Your task to perform on an android device: What's the weather going to be tomorrow? Image 0: 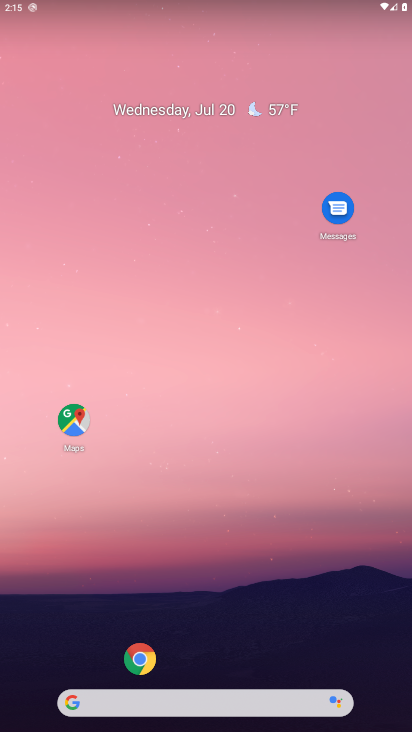
Step 0: click (117, 695)
Your task to perform on an android device: What's the weather going to be tomorrow? Image 1: 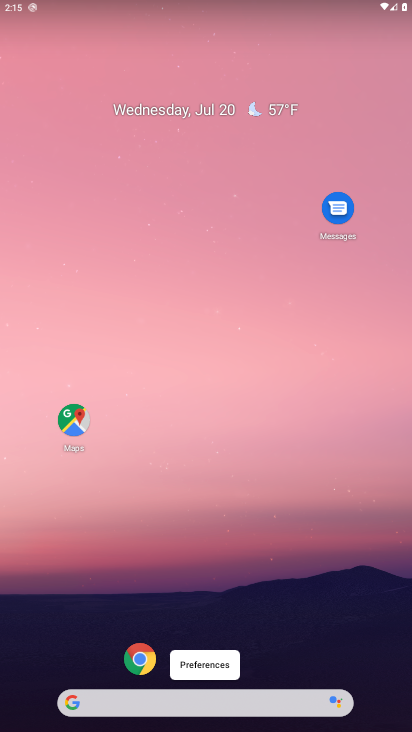
Step 1: click (118, 700)
Your task to perform on an android device: What's the weather going to be tomorrow? Image 2: 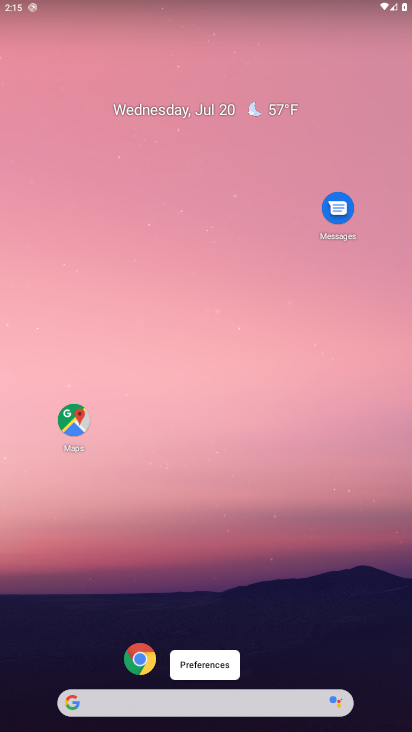
Step 2: click (118, 699)
Your task to perform on an android device: What's the weather going to be tomorrow? Image 3: 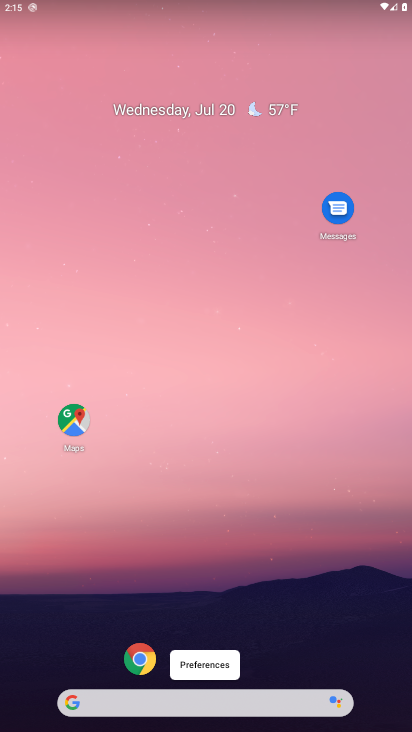
Step 3: click (119, 702)
Your task to perform on an android device: What's the weather going to be tomorrow? Image 4: 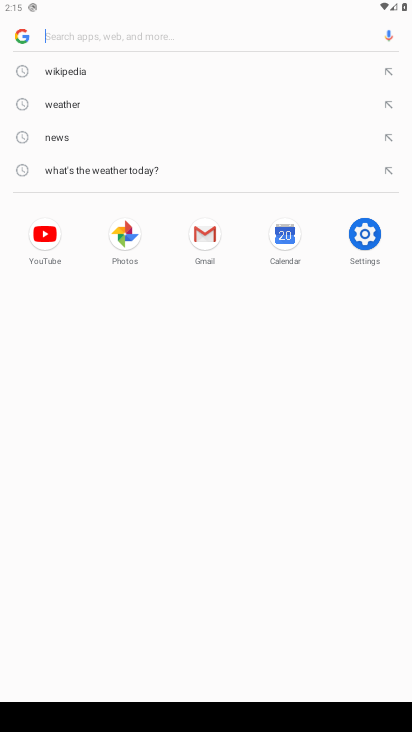
Step 4: type "What's the weather going to be tomorrow?"
Your task to perform on an android device: What's the weather going to be tomorrow? Image 5: 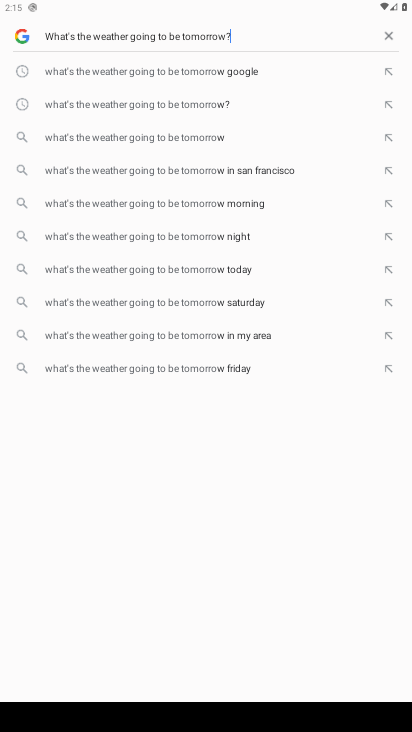
Step 5: type ""
Your task to perform on an android device: What's the weather going to be tomorrow? Image 6: 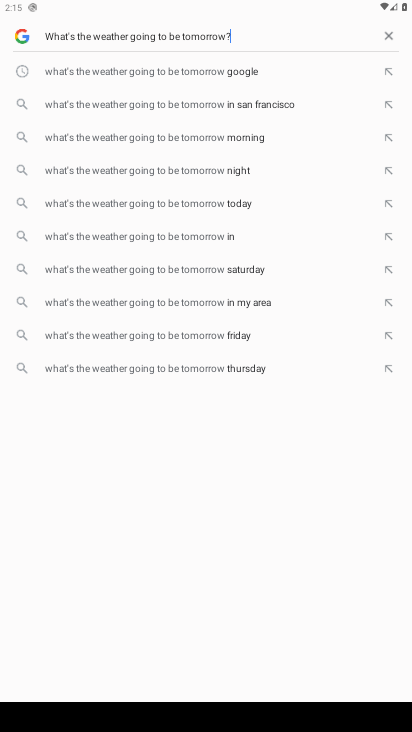
Step 6: type ""
Your task to perform on an android device: What's the weather going to be tomorrow? Image 7: 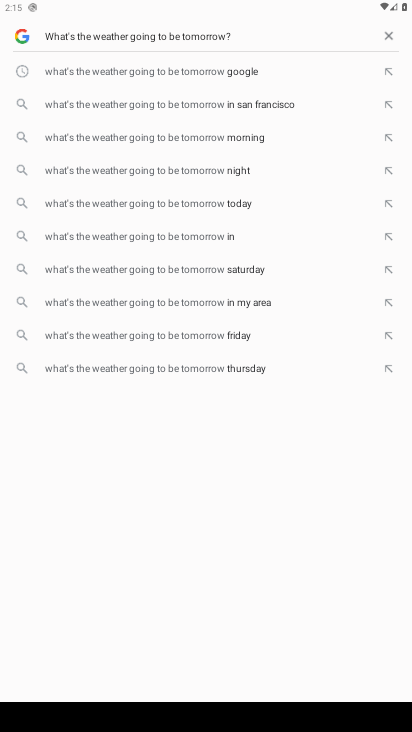
Step 7: type ""
Your task to perform on an android device: What's the weather going to be tomorrow? Image 8: 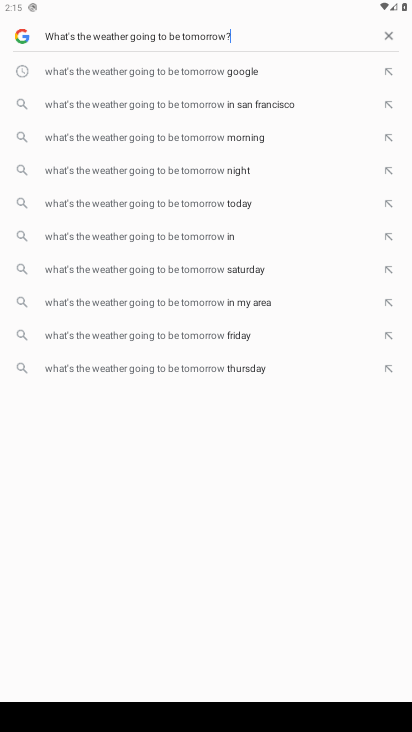
Step 8: task complete